Your task to perform on an android device: Go to privacy settings Image 0: 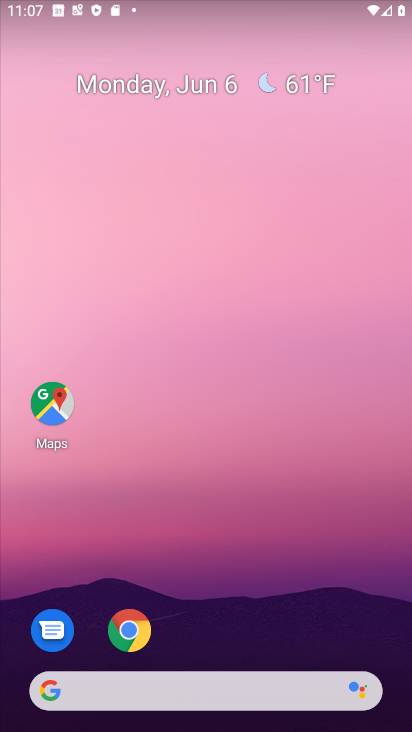
Step 0: drag from (338, 591) to (336, 180)
Your task to perform on an android device: Go to privacy settings Image 1: 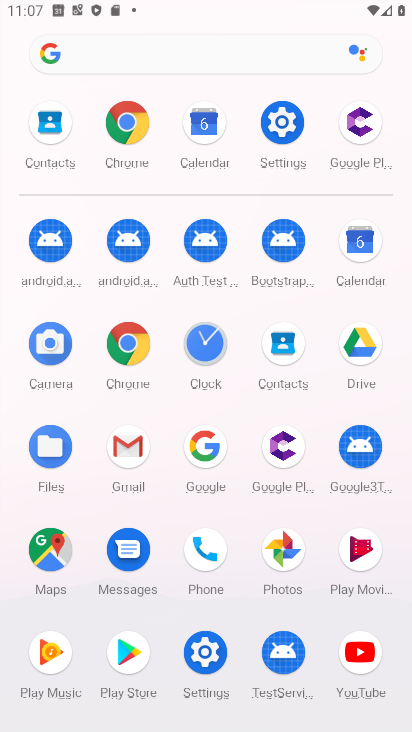
Step 1: click (302, 127)
Your task to perform on an android device: Go to privacy settings Image 2: 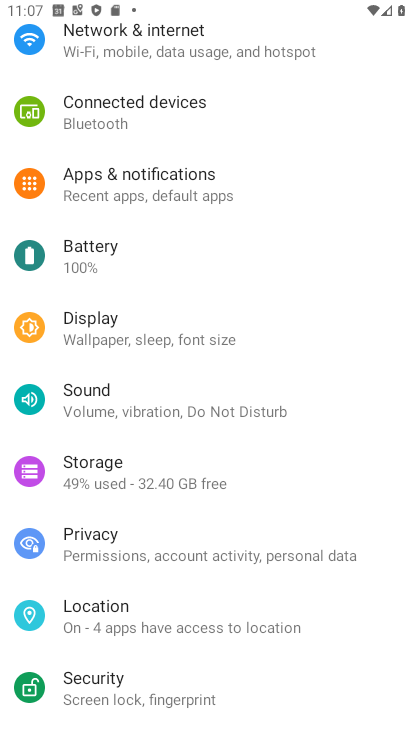
Step 2: click (149, 556)
Your task to perform on an android device: Go to privacy settings Image 3: 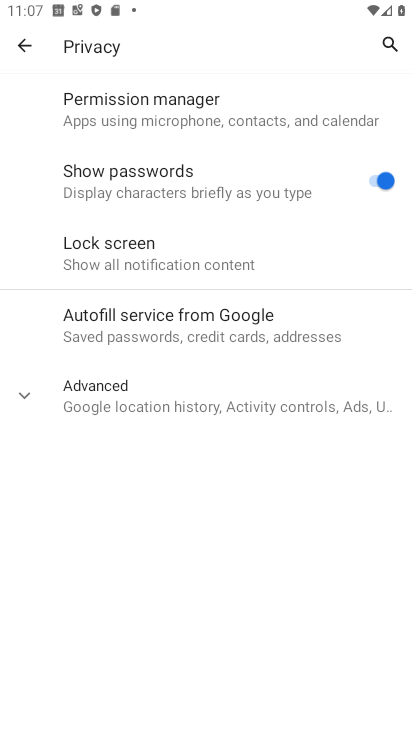
Step 3: task complete